Your task to perform on an android device: Search for the best rated headphones on AliExpress. Image 0: 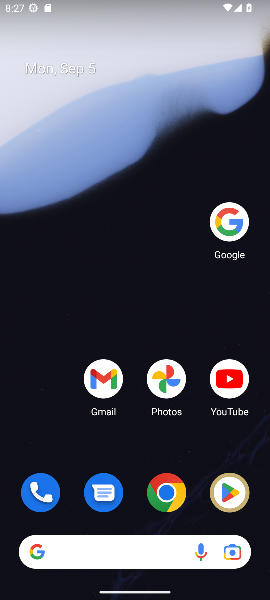
Step 0: click (224, 210)
Your task to perform on an android device: Search for the best rated headphones on AliExpress. Image 1: 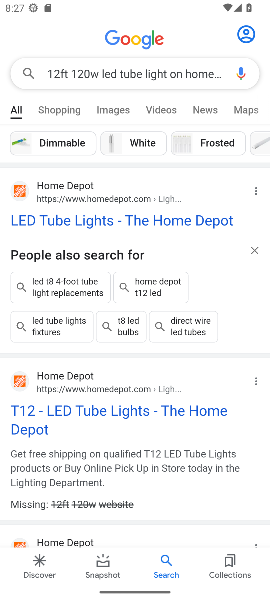
Step 1: click (180, 64)
Your task to perform on an android device: Search for the best rated headphones on AliExpress. Image 2: 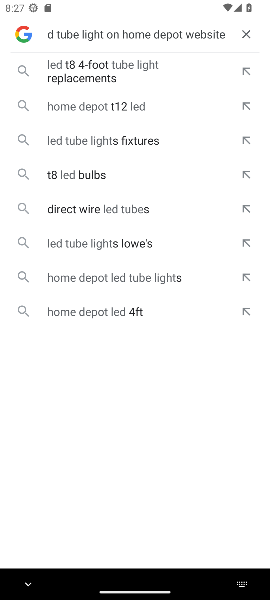
Step 2: click (251, 27)
Your task to perform on an android device: Search for the best rated headphones on AliExpress. Image 3: 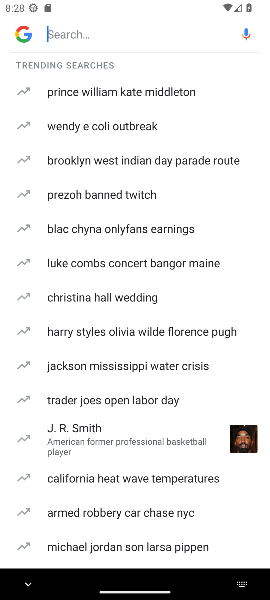
Step 3: click (130, 20)
Your task to perform on an android device: Search for the best rated headphones on AliExpress. Image 4: 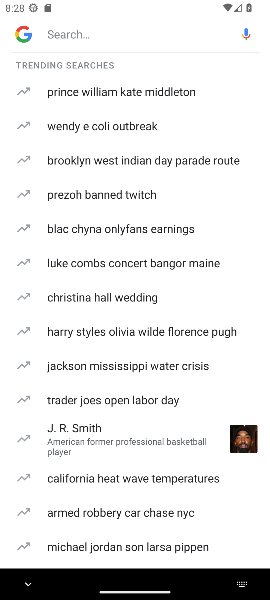
Step 4: type "the best rated headphones on AliExpress. "
Your task to perform on an android device: Search for the best rated headphones on AliExpress. Image 5: 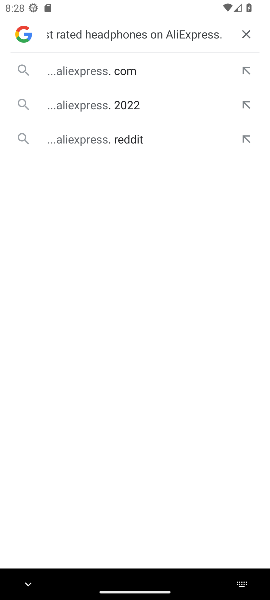
Step 5: click (104, 71)
Your task to perform on an android device: Search for the best rated headphones on AliExpress. Image 6: 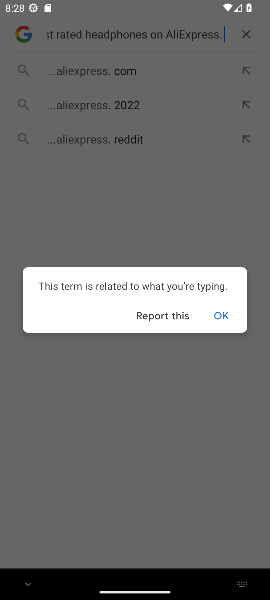
Step 6: click (209, 314)
Your task to perform on an android device: Search for the best rated headphones on AliExpress. Image 7: 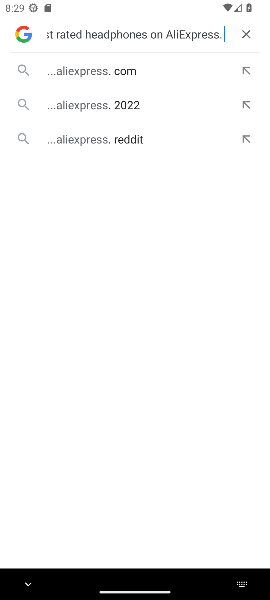
Step 7: click (117, 104)
Your task to perform on an android device: Search for the best rated headphones on AliExpress. Image 8: 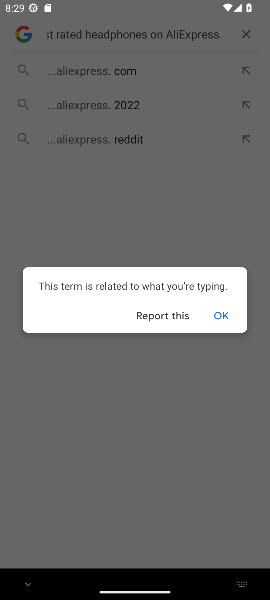
Step 8: click (216, 318)
Your task to perform on an android device: Search for the best rated headphones on AliExpress. Image 9: 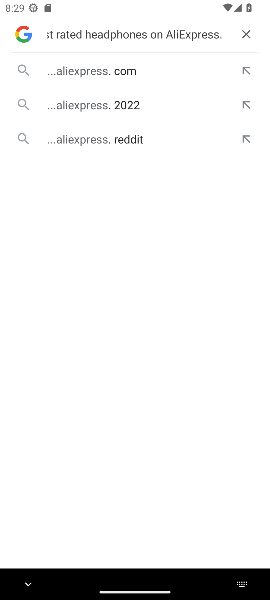
Step 9: click (70, 133)
Your task to perform on an android device: Search for the best rated headphones on AliExpress. Image 10: 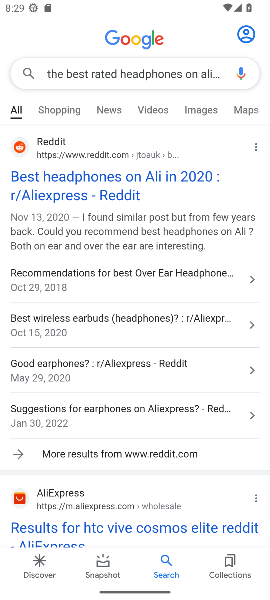
Step 10: drag from (131, 500) to (157, 142)
Your task to perform on an android device: Search for the best rated headphones on AliExpress. Image 11: 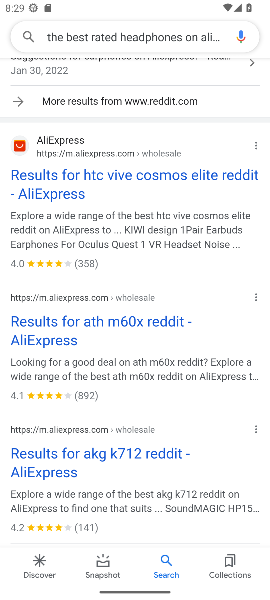
Step 11: click (46, 452)
Your task to perform on an android device: Search for the best rated headphones on AliExpress. Image 12: 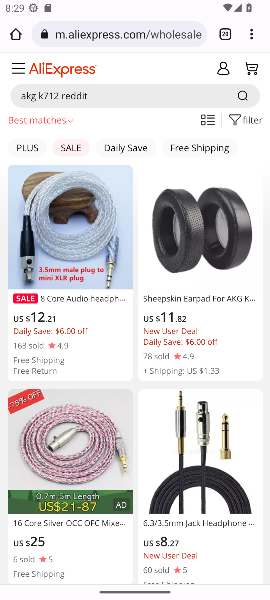
Step 12: press back button
Your task to perform on an android device: Search for the best rated headphones on AliExpress. Image 13: 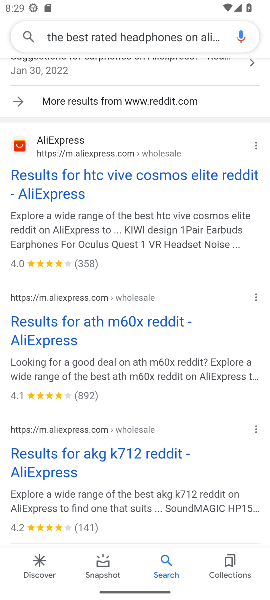
Step 13: drag from (100, 489) to (159, 512)
Your task to perform on an android device: Search for the best rated headphones on AliExpress. Image 14: 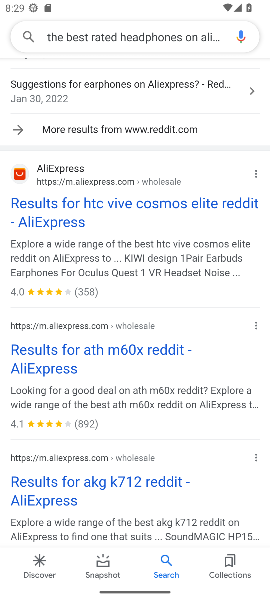
Step 14: drag from (135, 207) to (141, 393)
Your task to perform on an android device: Search for the best rated headphones on AliExpress. Image 15: 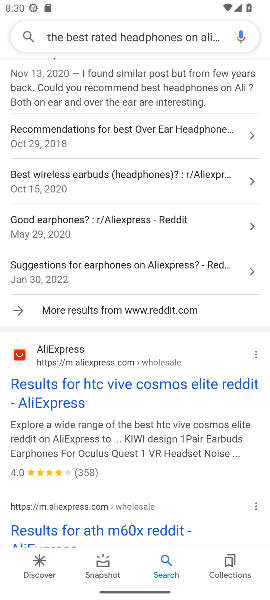
Step 15: drag from (133, 115) to (140, 460)
Your task to perform on an android device: Search for the best rated headphones on AliExpress. Image 16: 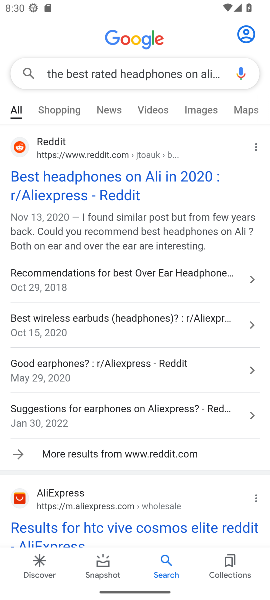
Step 16: drag from (117, 168) to (135, 419)
Your task to perform on an android device: Search for the best rated headphones on AliExpress. Image 17: 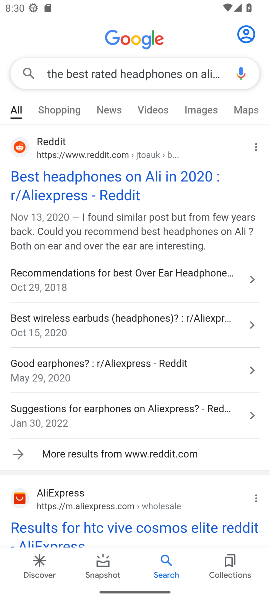
Step 17: click (71, 201)
Your task to perform on an android device: Search for the best rated headphones on AliExpress. Image 18: 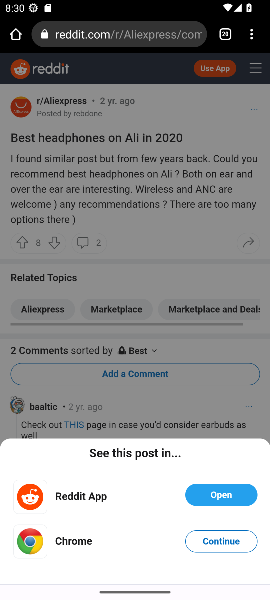
Step 18: task complete